Your task to perform on an android device: What's the weather? Image 0: 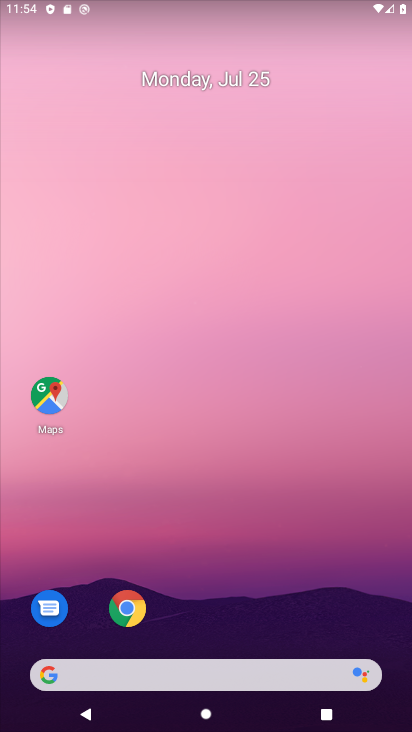
Step 0: click (207, 679)
Your task to perform on an android device: What's the weather? Image 1: 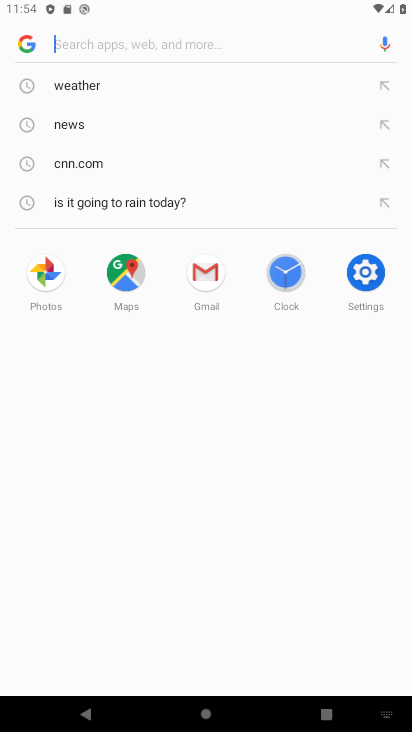
Step 1: click (89, 74)
Your task to perform on an android device: What's the weather? Image 2: 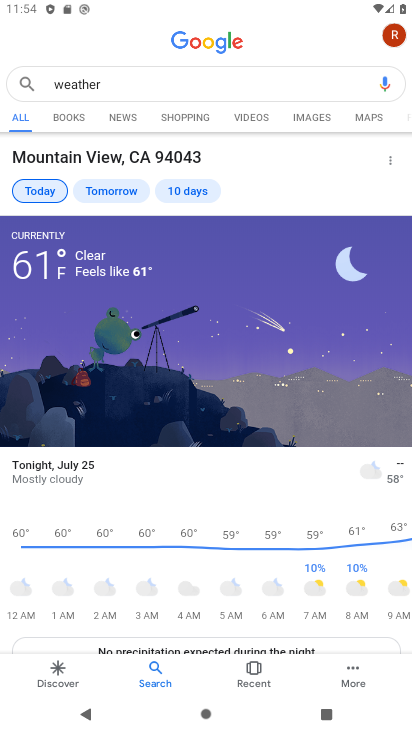
Step 2: task complete